Your task to perform on an android device: Go to notification settings Image 0: 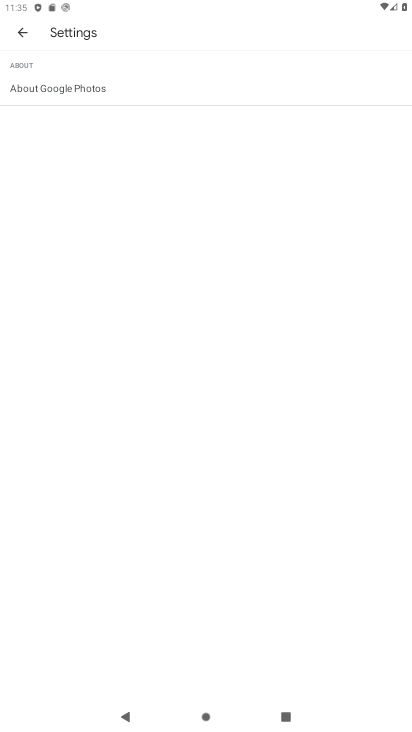
Step 0: press home button
Your task to perform on an android device: Go to notification settings Image 1: 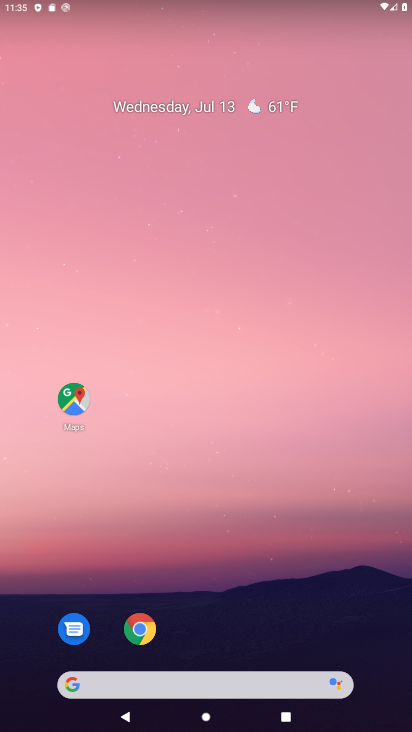
Step 1: drag from (189, 642) to (99, 67)
Your task to perform on an android device: Go to notification settings Image 2: 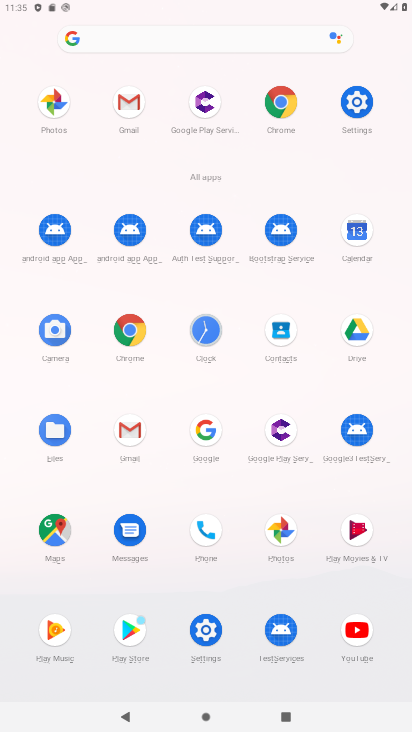
Step 2: click (356, 111)
Your task to perform on an android device: Go to notification settings Image 3: 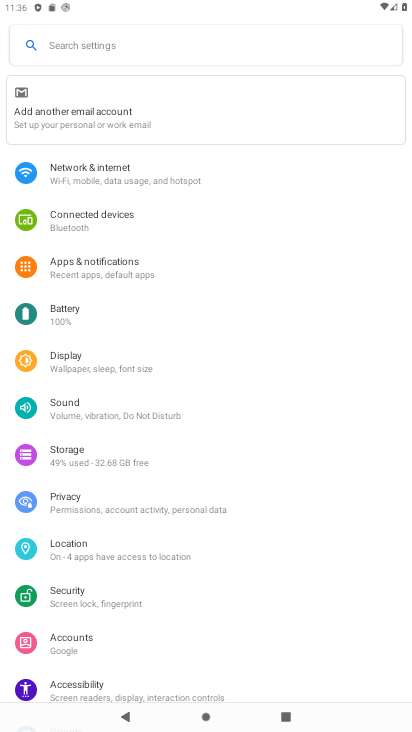
Step 3: click (137, 277)
Your task to perform on an android device: Go to notification settings Image 4: 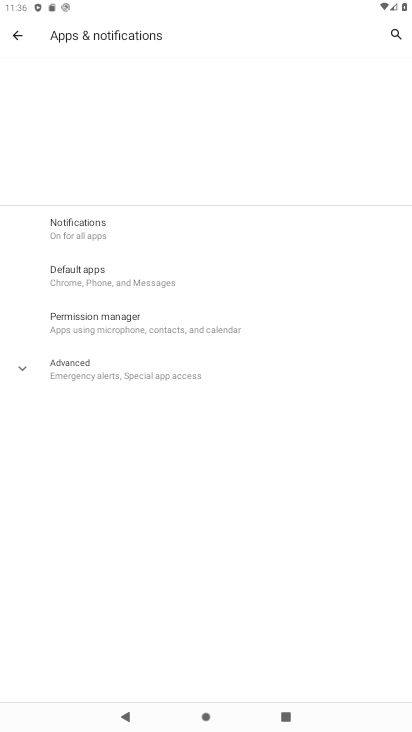
Step 4: click (83, 222)
Your task to perform on an android device: Go to notification settings Image 5: 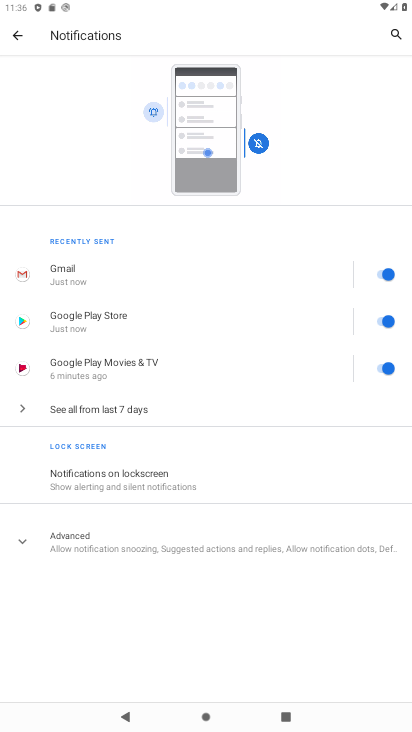
Step 5: task complete